Your task to perform on an android device: Go to internet settings Image 0: 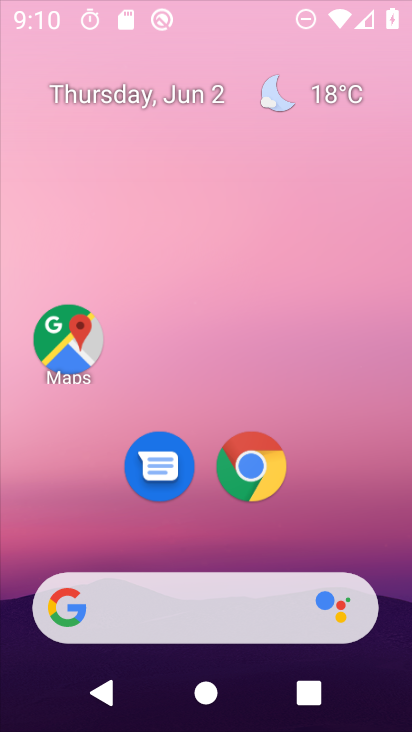
Step 0: press home button
Your task to perform on an android device: Go to internet settings Image 1: 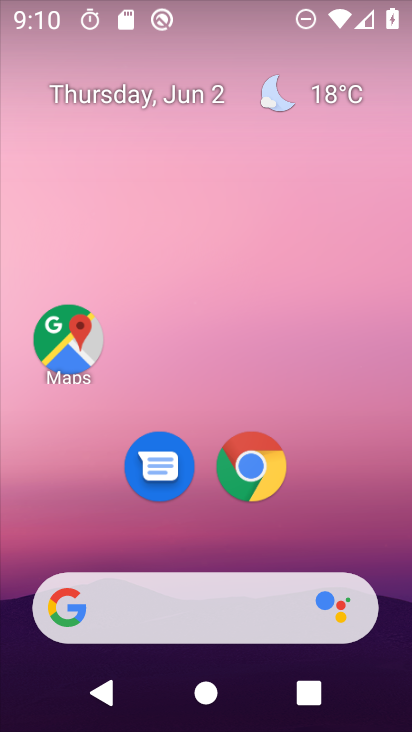
Step 1: drag from (201, 534) to (191, 0)
Your task to perform on an android device: Go to internet settings Image 2: 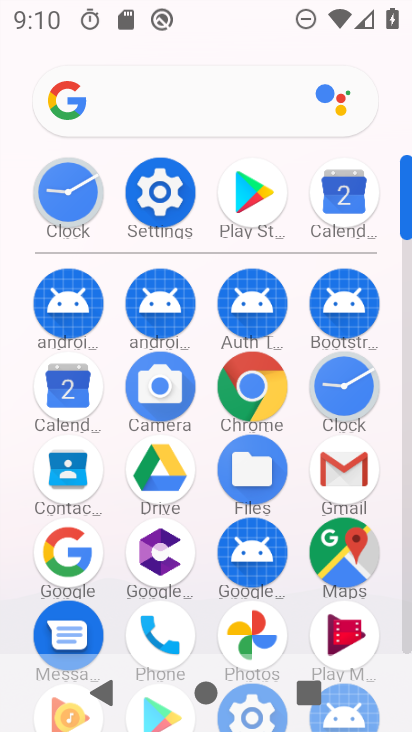
Step 2: click (164, 192)
Your task to perform on an android device: Go to internet settings Image 3: 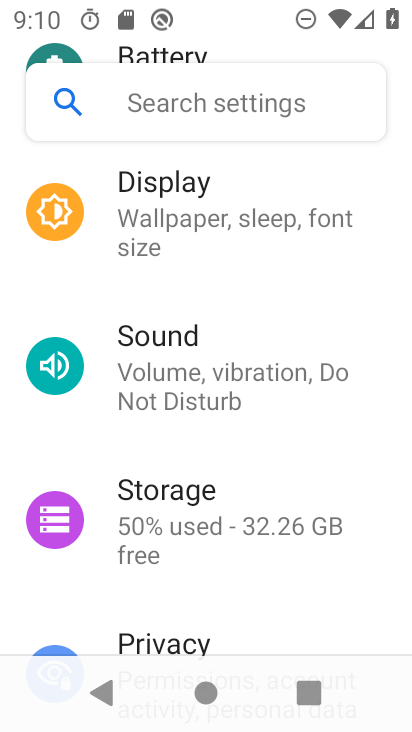
Step 3: drag from (295, 196) to (258, 715)
Your task to perform on an android device: Go to internet settings Image 4: 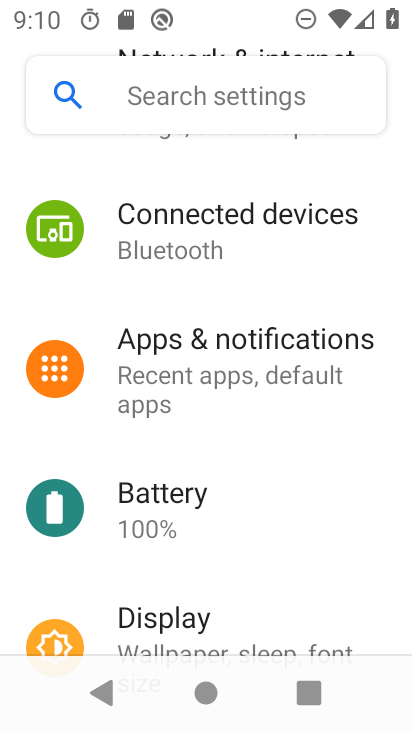
Step 4: drag from (205, 166) to (123, 731)
Your task to perform on an android device: Go to internet settings Image 5: 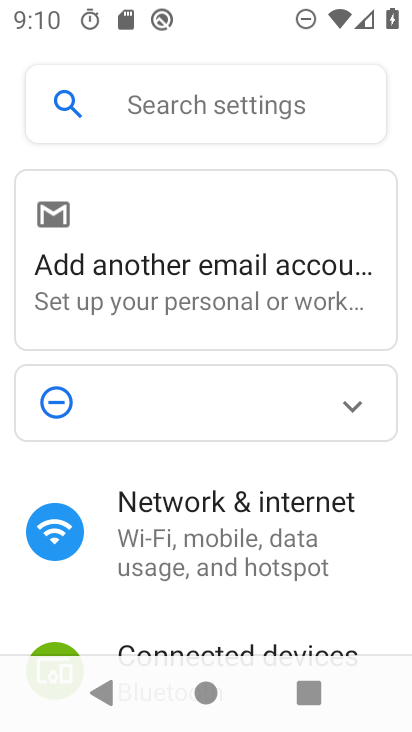
Step 5: click (198, 490)
Your task to perform on an android device: Go to internet settings Image 6: 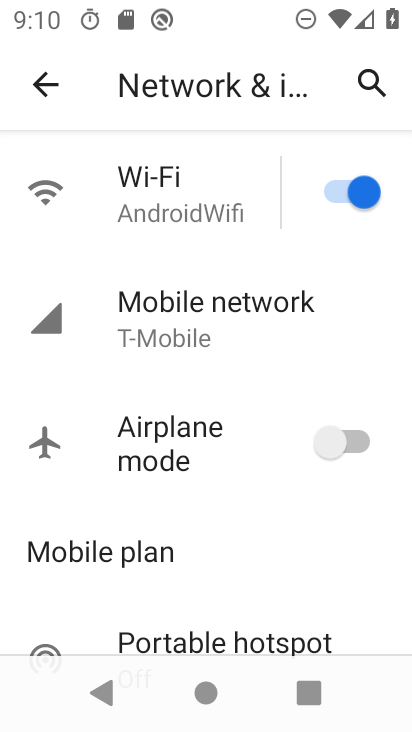
Step 6: task complete